Your task to perform on an android device: open app "Facebook Lite" Image 0: 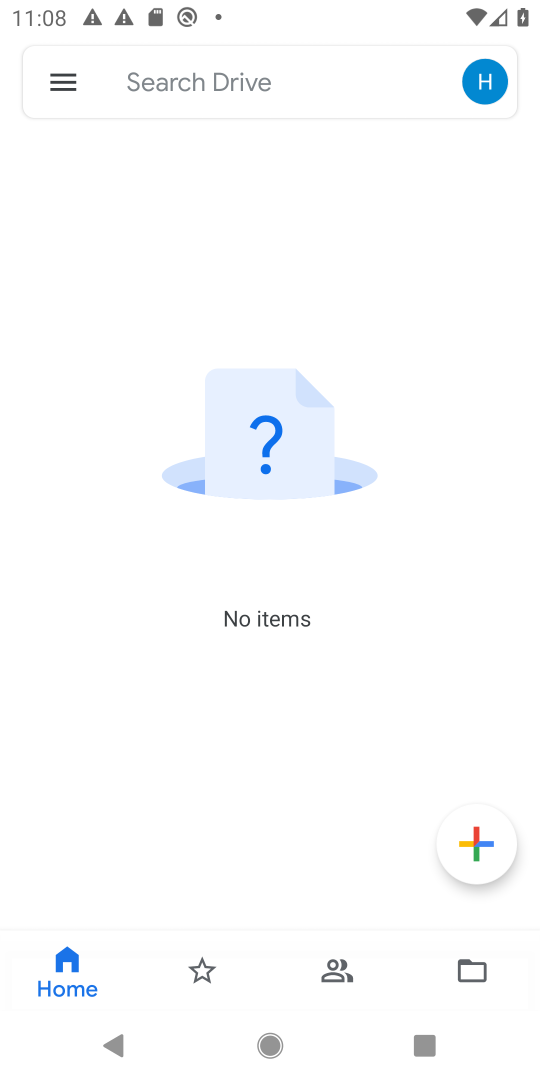
Step 0: press home button
Your task to perform on an android device: open app "Facebook Lite" Image 1: 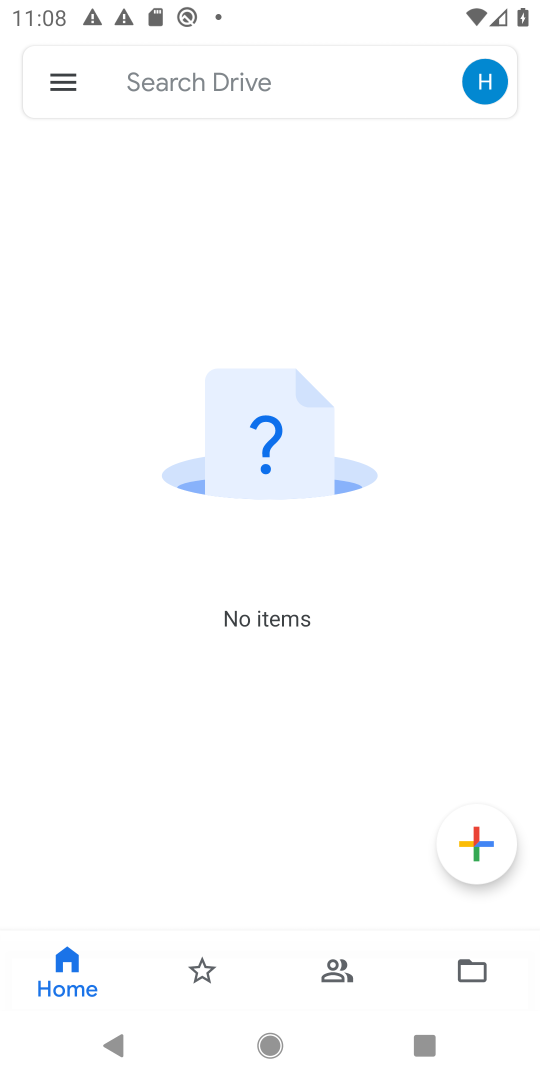
Step 1: press home button
Your task to perform on an android device: open app "Facebook Lite" Image 2: 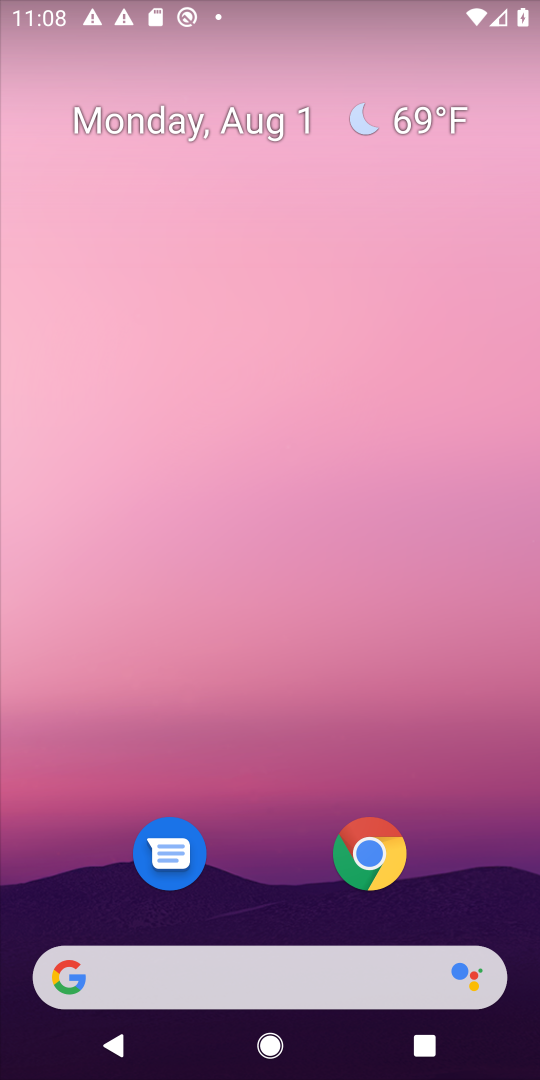
Step 2: drag from (224, 953) to (312, 116)
Your task to perform on an android device: open app "Facebook Lite" Image 3: 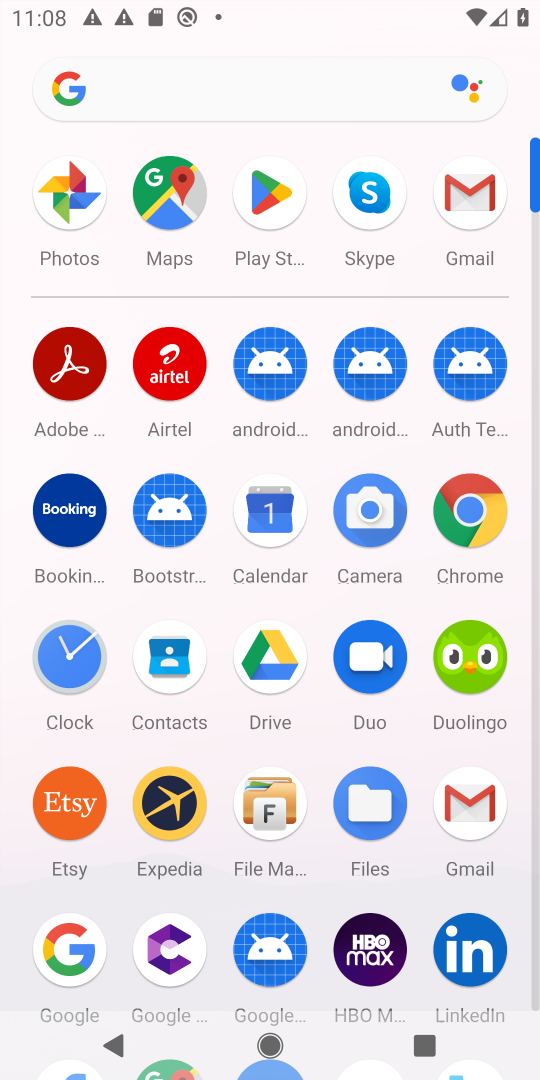
Step 3: click (247, 205)
Your task to perform on an android device: open app "Facebook Lite" Image 4: 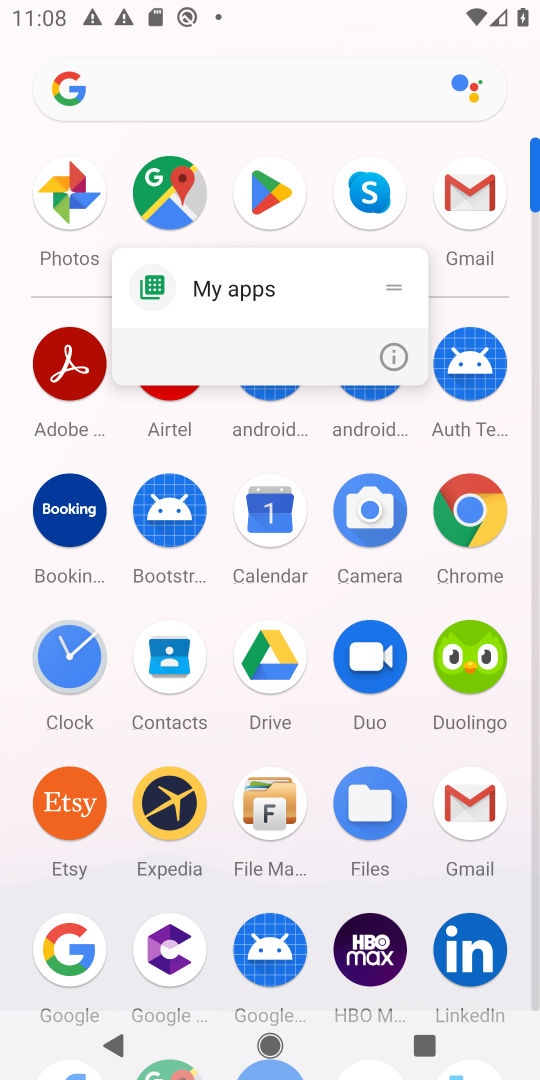
Step 4: click (392, 344)
Your task to perform on an android device: open app "Facebook Lite" Image 5: 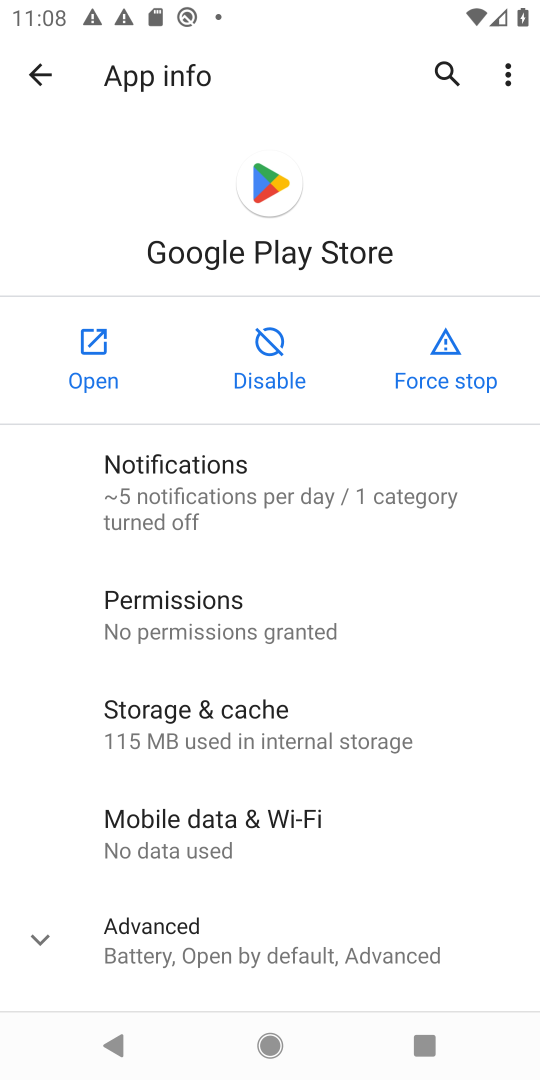
Step 5: click (96, 369)
Your task to perform on an android device: open app "Facebook Lite" Image 6: 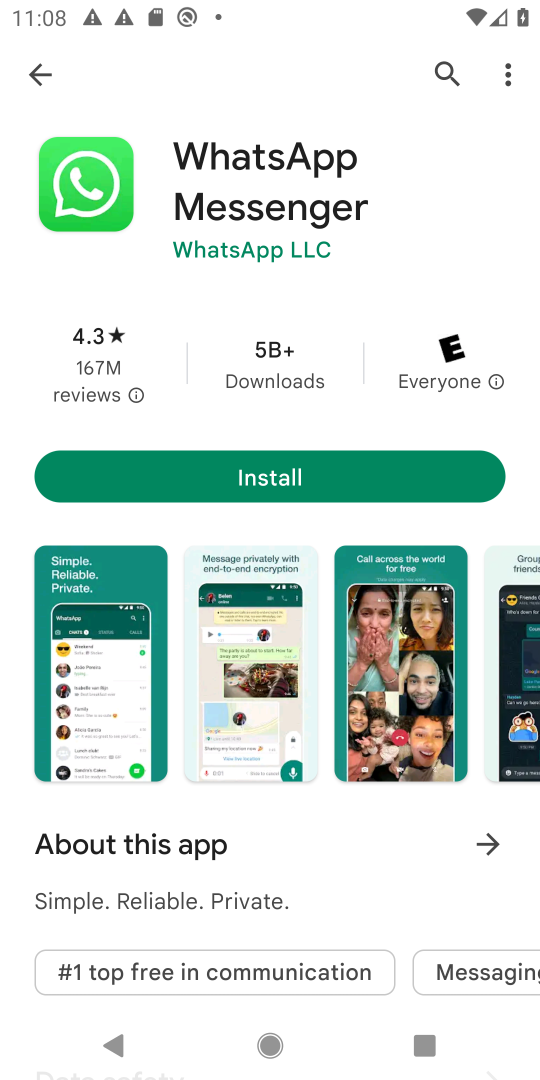
Step 6: click (432, 87)
Your task to perform on an android device: open app "Facebook Lite" Image 7: 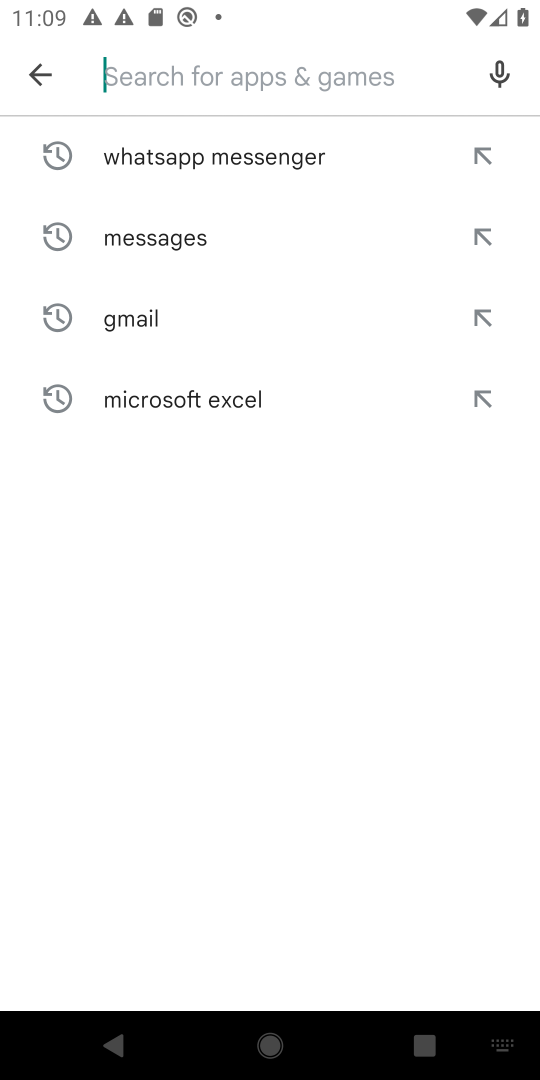
Step 7: type "facebook lite"
Your task to perform on an android device: open app "Facebook Lite" Image 8: 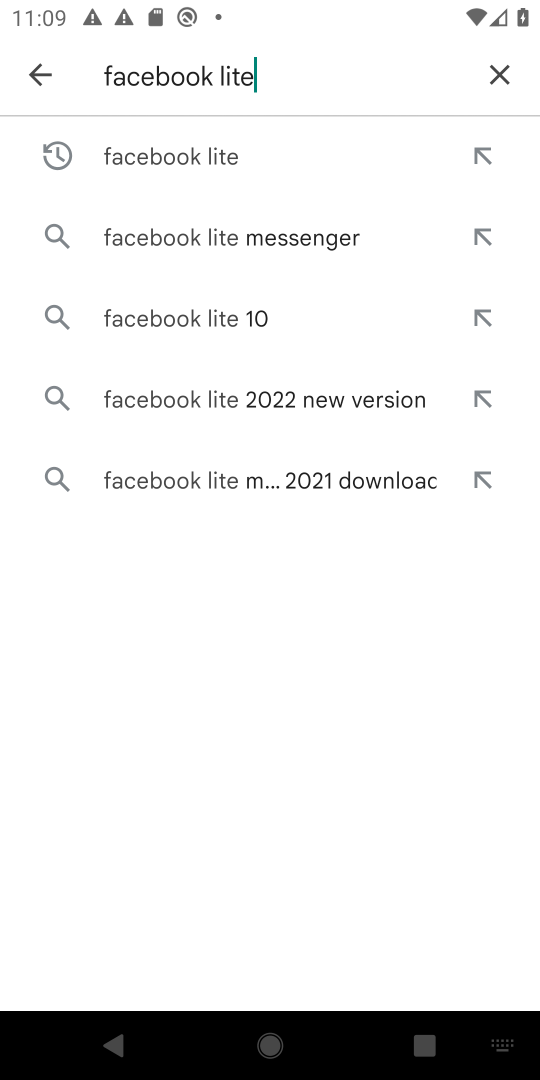
Step 8: click (171, 159)
Your task to perform on an android device: open app "Facebook Lite" Image 9: 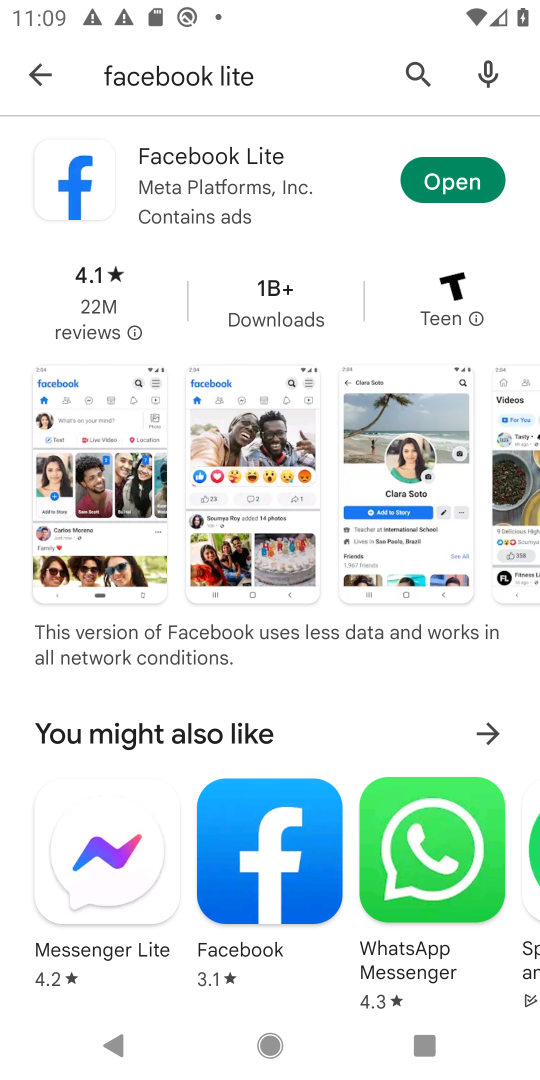
Step 9: click (185, 175)
Your task to perform on an android device: open app "Facebook Lite" Image 10: 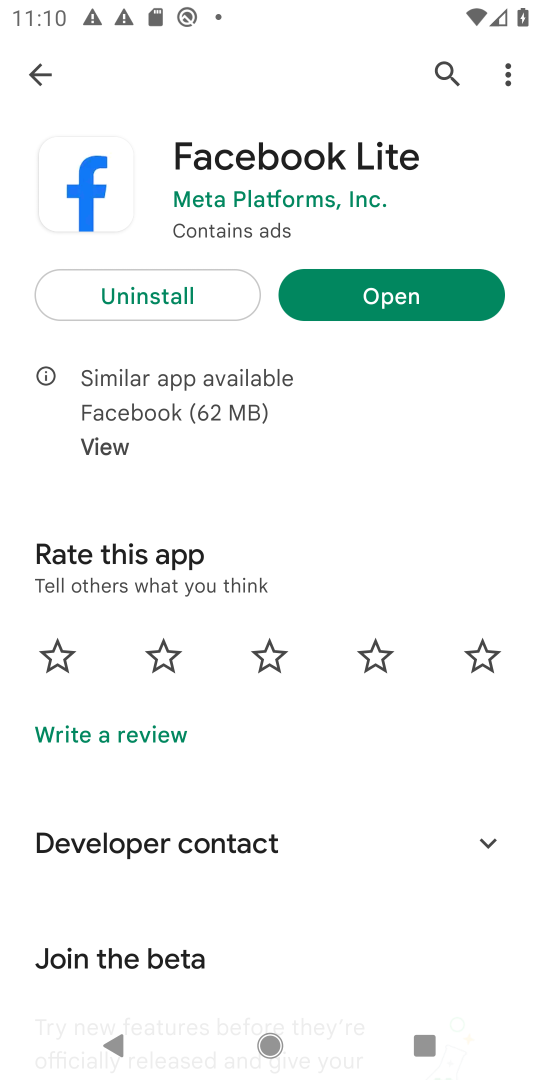
Step 10: click (374, 298)
Your task to perform on an android device: open app "Facebook Lite" Image 11: 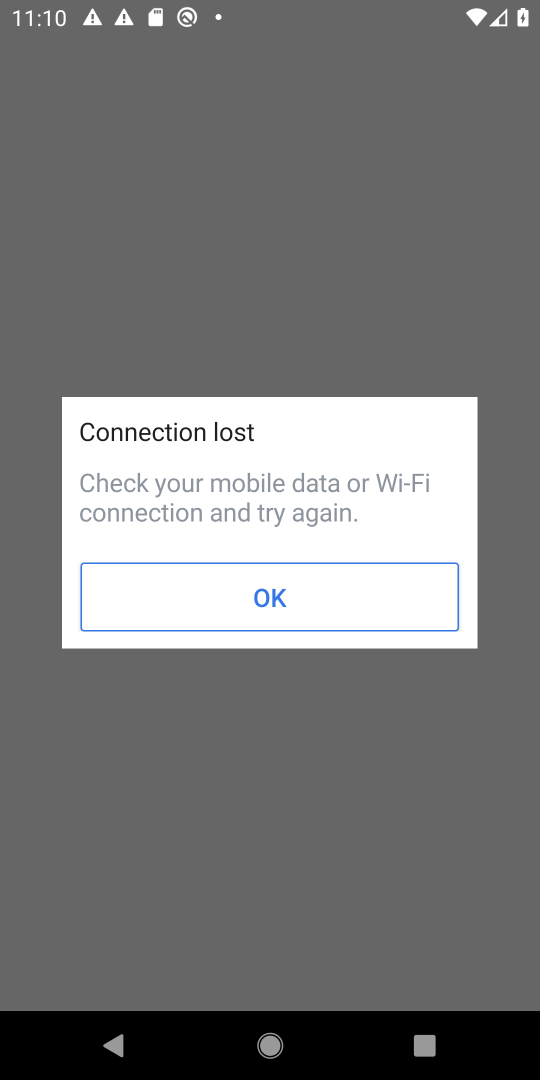
Step 11: press home button
Your task to perform on an android device: open app "Facebook Lite" Image 12: 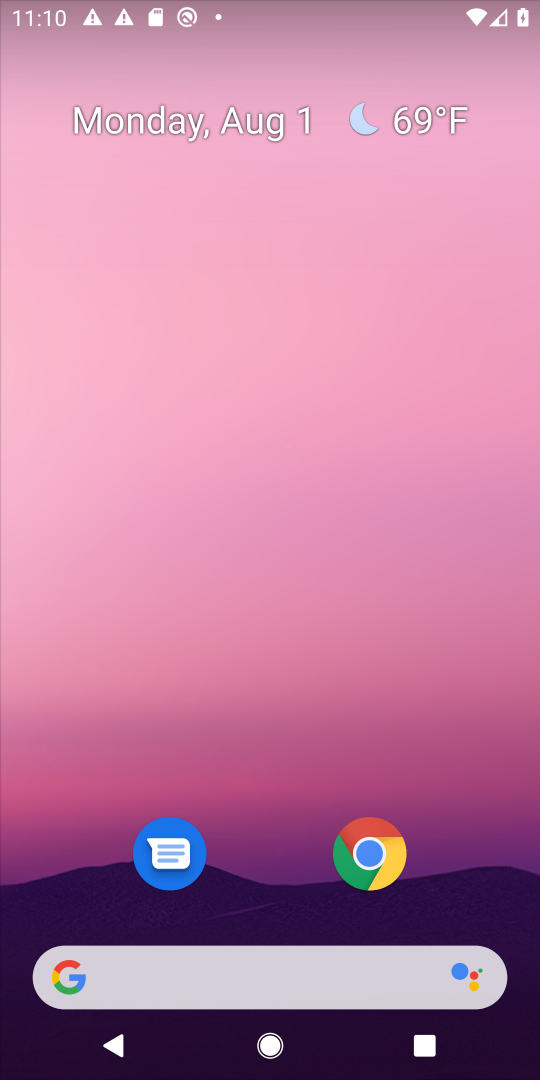
Step 12: drag from (217, 917) to (274, 310)
Your task to perform on an android device: open app "Facebook Lite" Image 13: 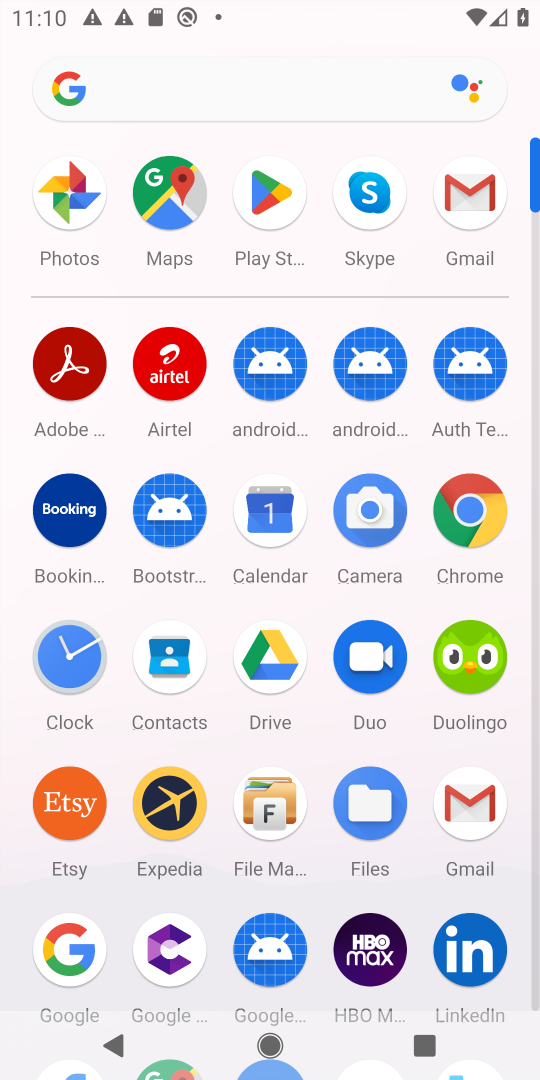
Step 13: click (252, 190)
Your task to perform on an android device: open app "Facebook Lite" Image 14: 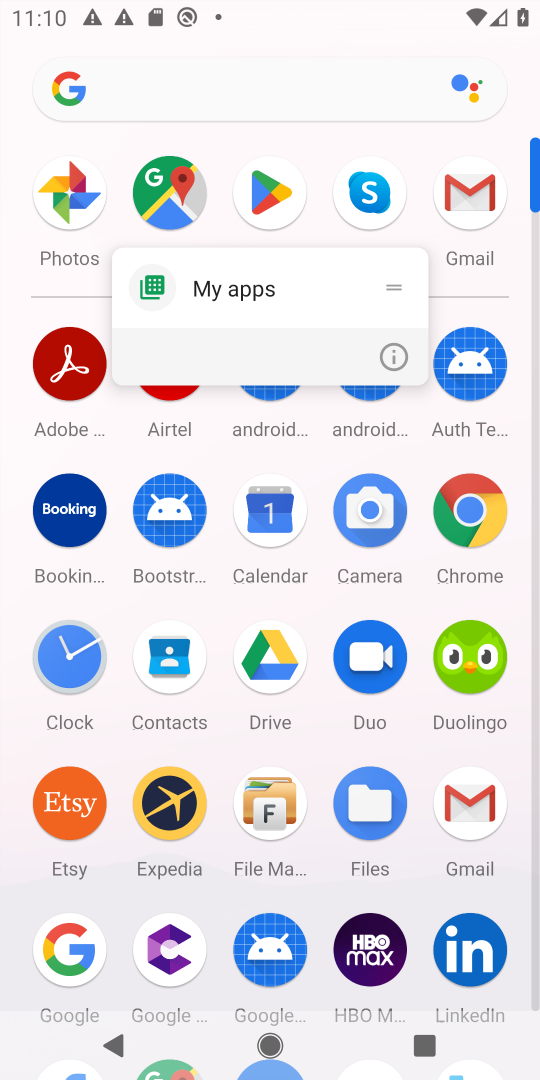
Step 14: click (412, 353)
Your task to perform on an android device: open app "Facebook Lite" Image 15: 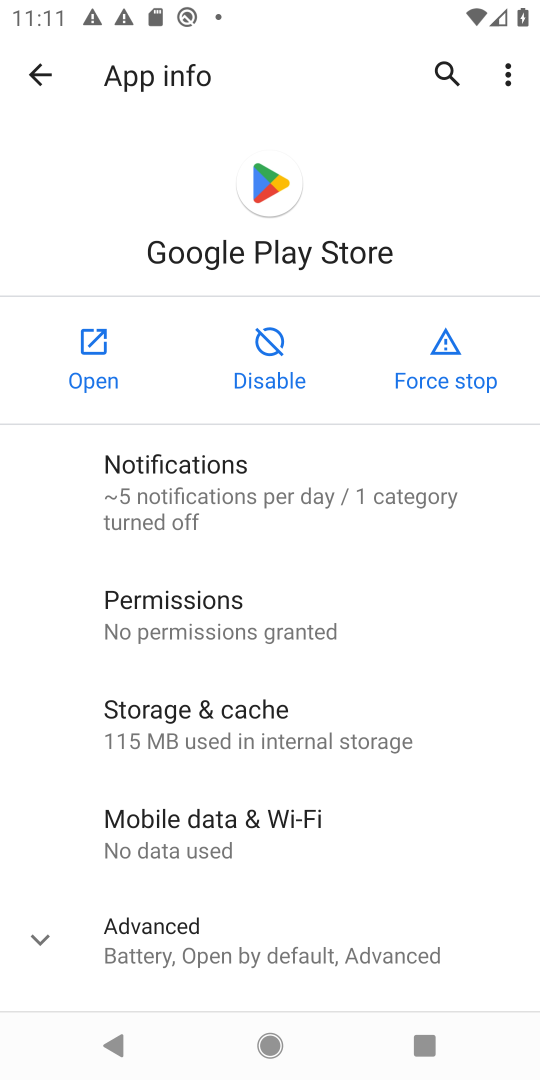
Step 15: click (105, 345)
Your task to perform on an android device: open app "Facebook Lite" Image 16: 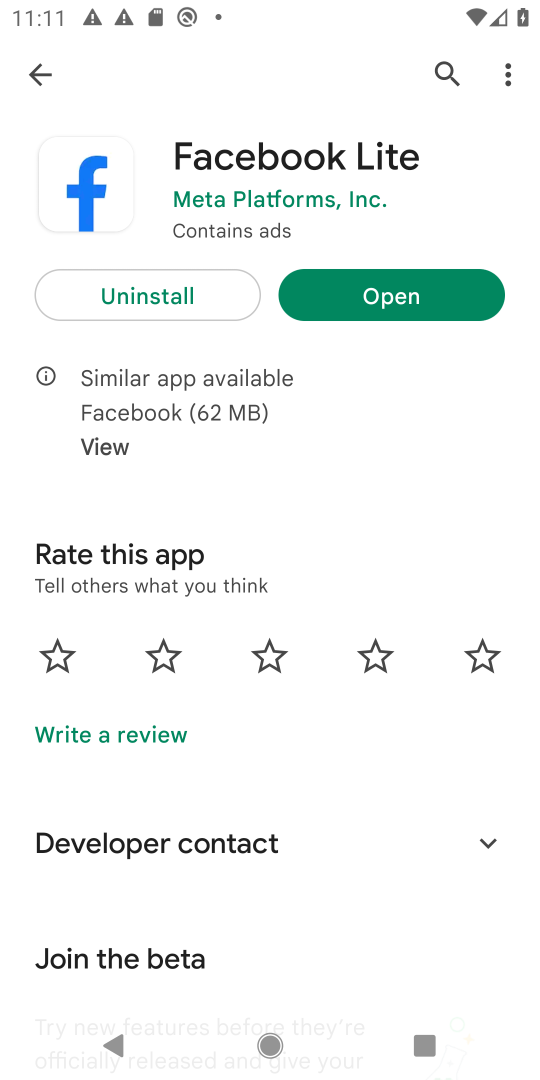
Step 16: drag from (350, 193) to (297, 698)
Your task to perform on an android device: open app "Facebook Lite" Image 17: 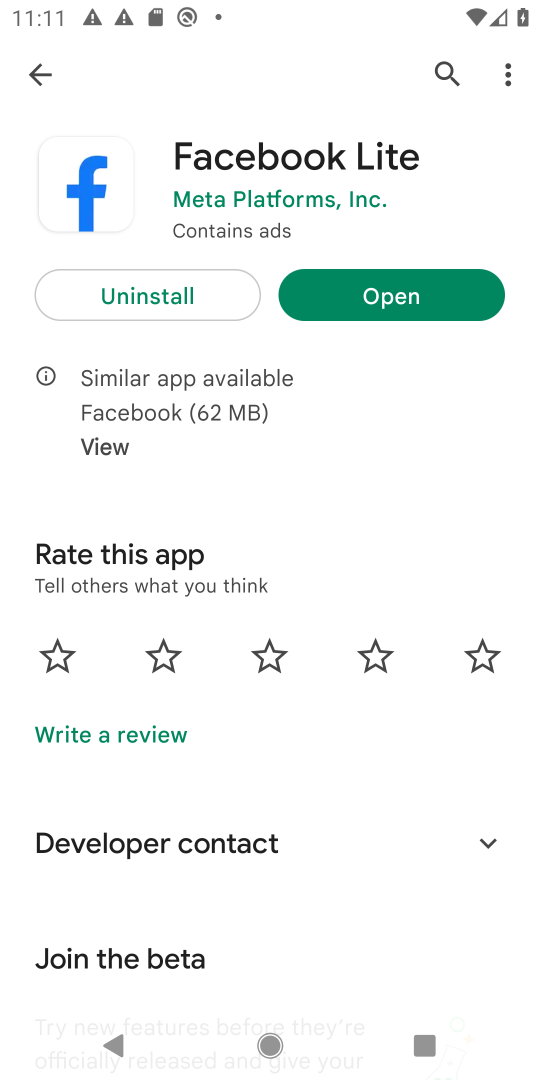
Step 17: drag from (327, 152) to (267, 1027)
Your task to perform on an android device: open app "Facebook Lite" Image 18: 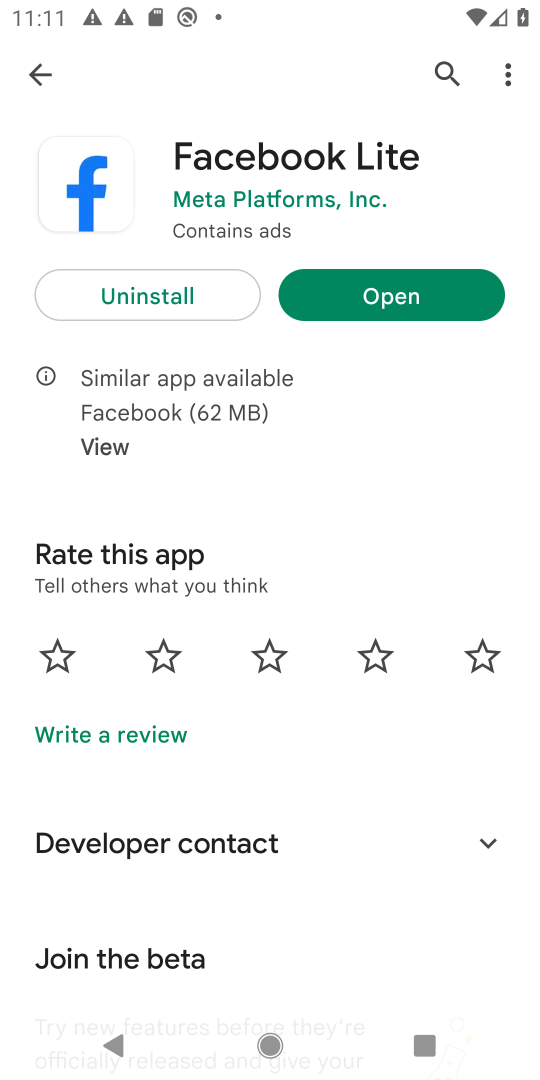
Step 18: drag from (299, 308) to (428, 1003)
Your task to perform on an android device: open app "Facebook Lite" Image 19: 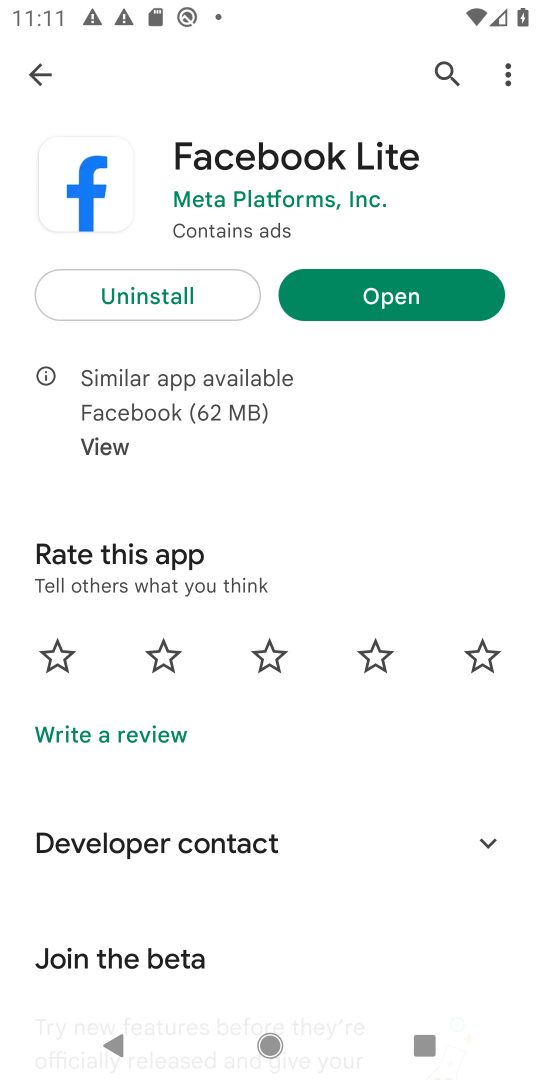
Step 19: drag from (324, 210) to (258, 1046)
Your task to perform on an android device: open app "Facebook Lite" Image 20: 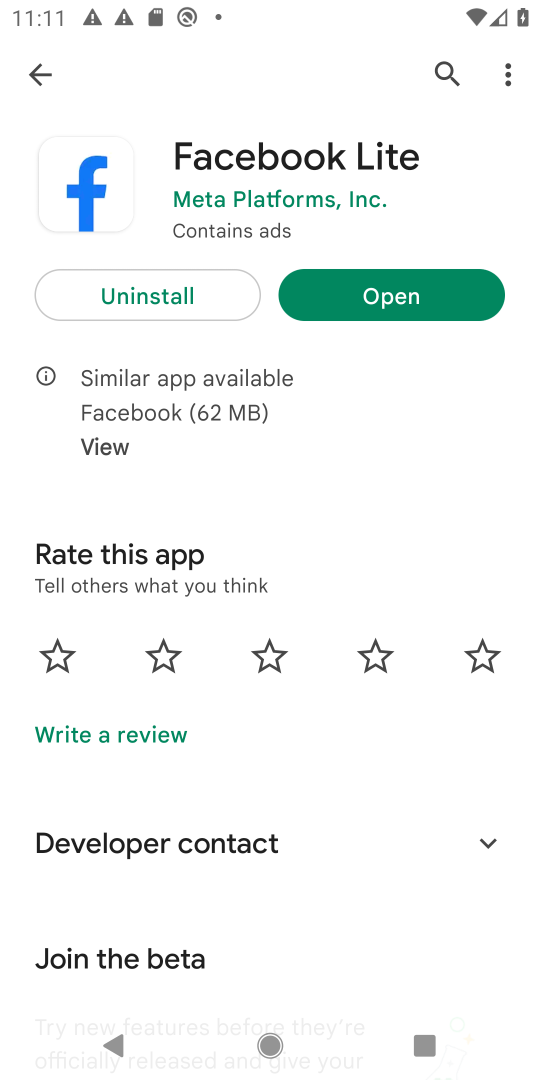
Step 20: drag from (319, 161) to (357, 954)
Your task to perform on an android device: open app "Facebook Lite" Image 21: 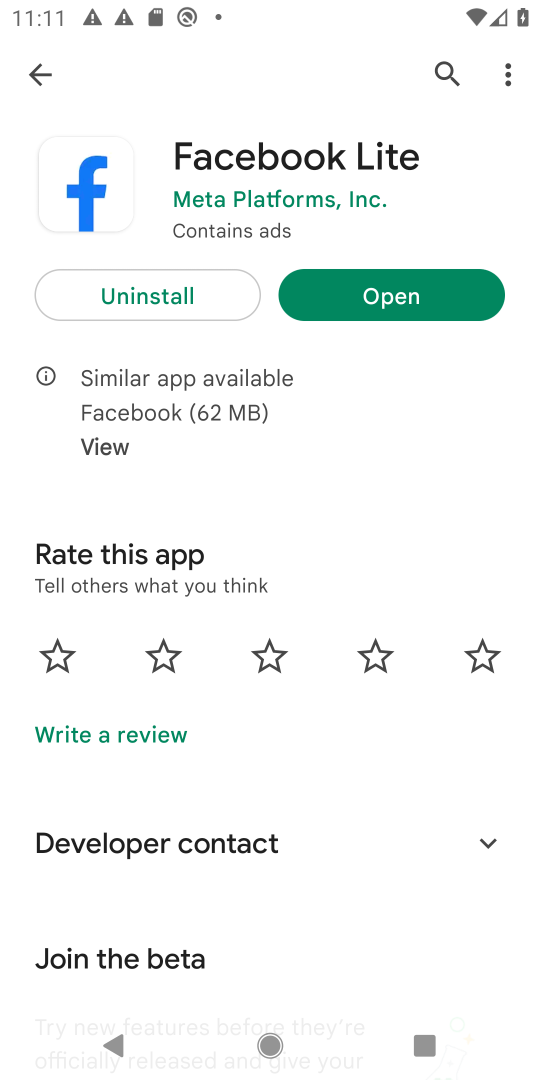
Step 21: drag from (262, 194) to (196, 807)
Your task to perform on an android device: open app "Facebook Lite" Image 22: 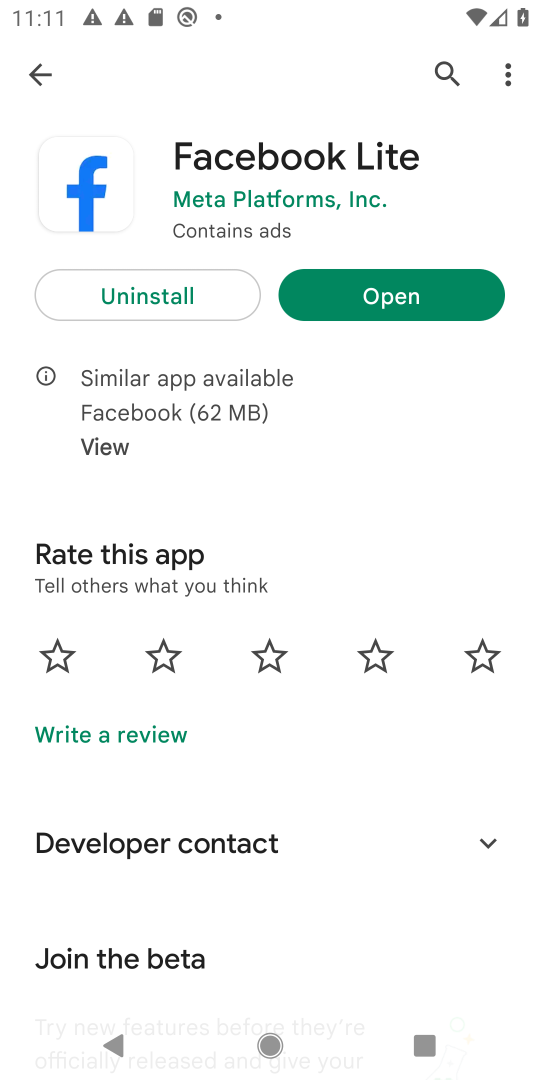
Step 22: click (347, 297)
Your task to perform on an android device: open app "Facebook Lite" Image 23: 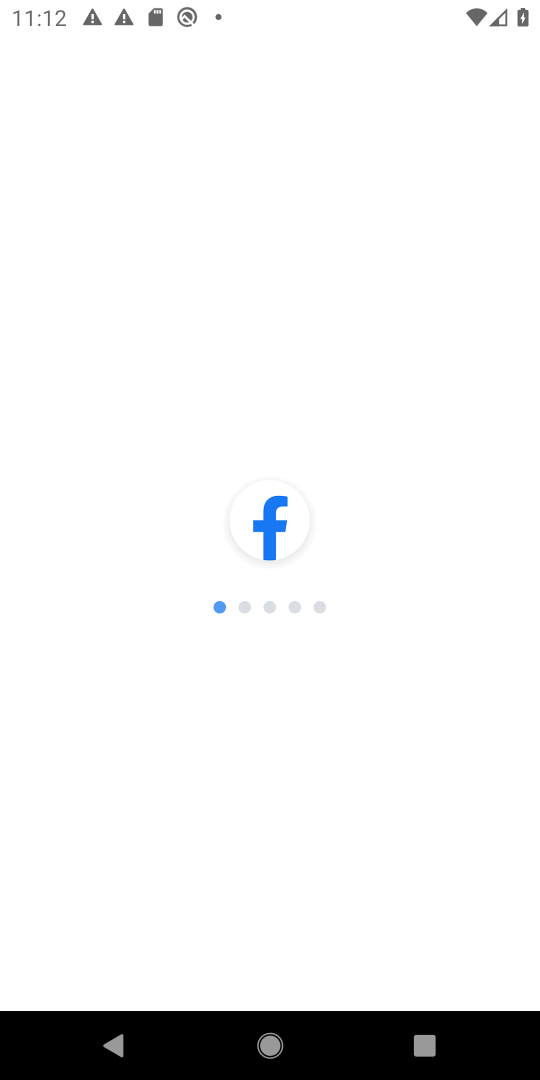
Step 23: task complete